Your task to perform on an android device: turn on showing notifications on the lock screen Image 0: 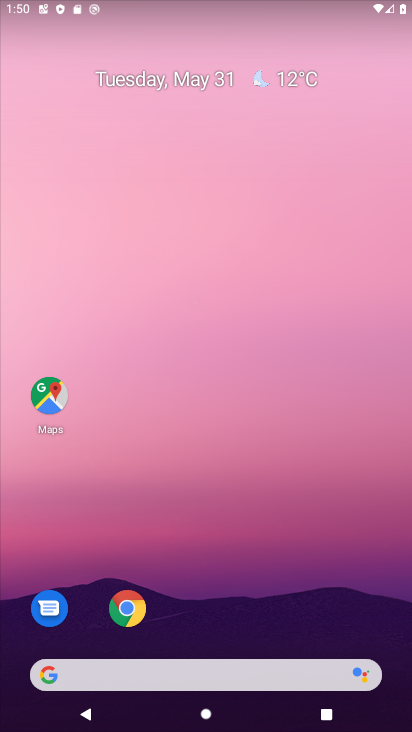
Step 0: drag from (332, 581) to (341, 172)
Your task to perform on an android device: turn on showing notifications on the lock screen Image 1: 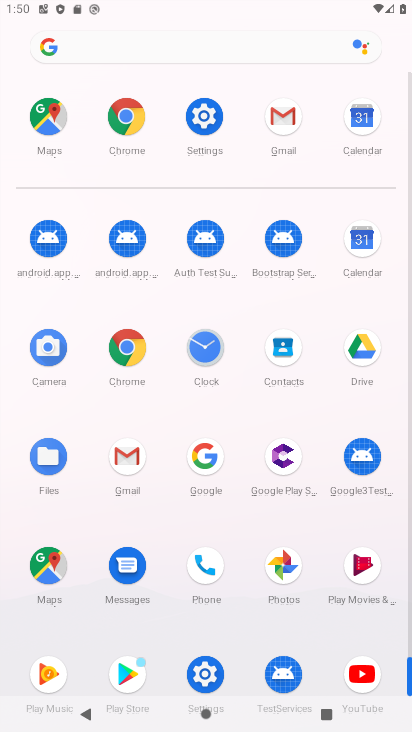
Step 1: click (199, 679)
Your task to perform on an android device: turn on showing notifications on the lock screen Image 2: 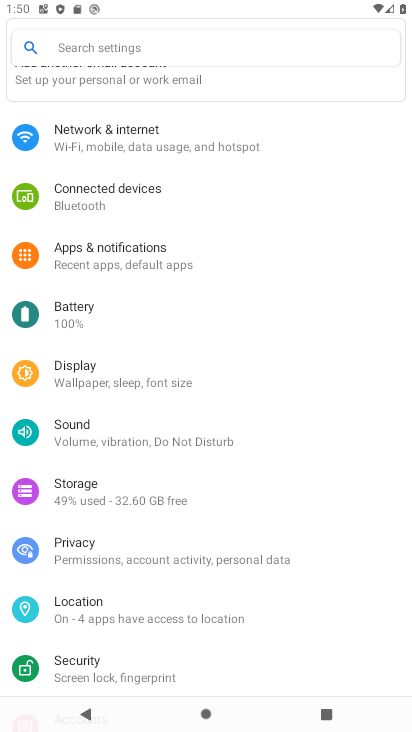
Step 2: click (121, 232)
Your task to perform on an android device: turn on showing notifications on the lock screen Image 3: 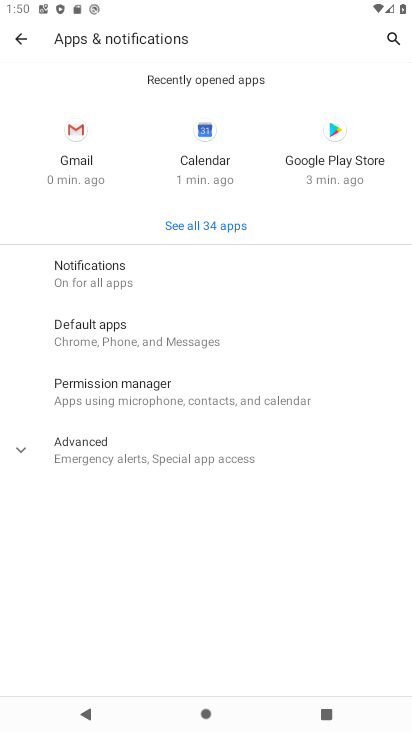
Step 3: click (118, 256)
Your task to perform on an android device: turn on showing notifications on the lock screen Image 4: 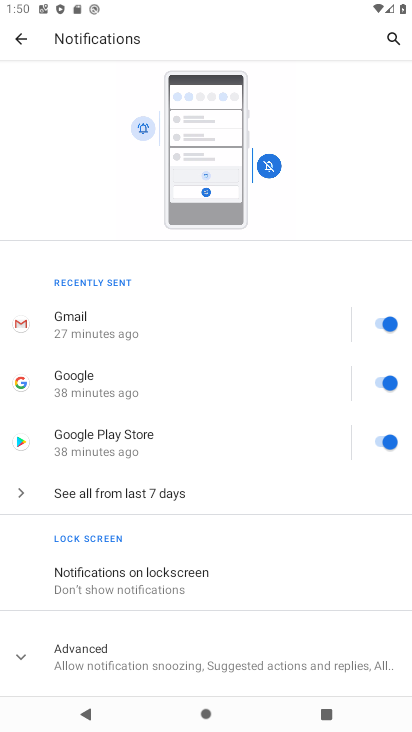
Step 4: click (185, 584)
Your task to perform on an android device: turn on showing notifications on the lock screen Image 5: 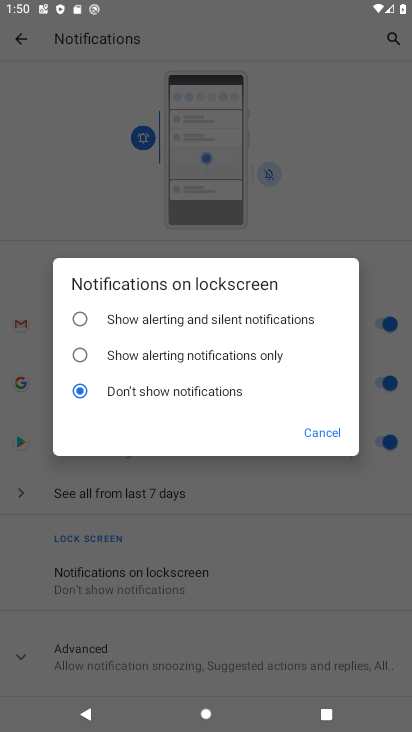
Step 5: click (142, 316)
Your task to perform on an android device: turn on showing notifications on the lock screen Image 6: 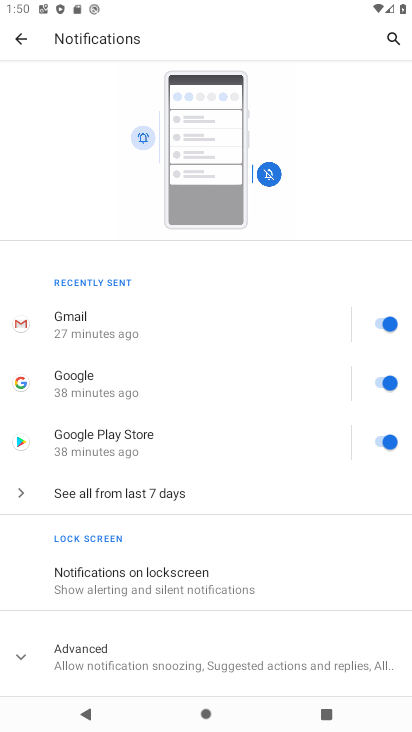
Step 6: task complete